Your task to perform on an android device: check the backup settings in the google photos Image 0: 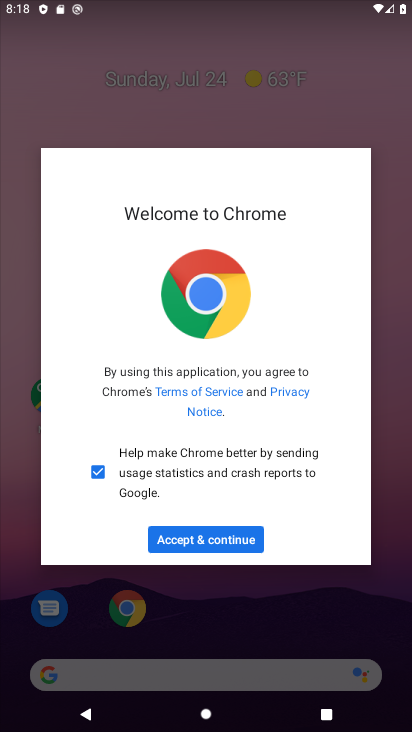
Step 0: press home button
Your task to perform on an android device: check the backup settings in the google photos Image 1: 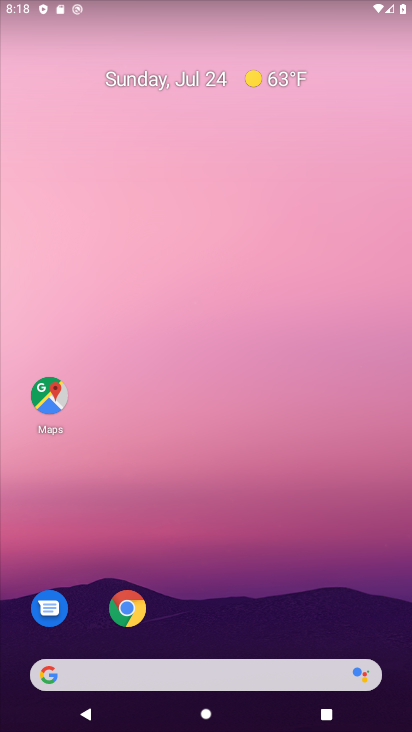
Step 1: drag from (215, 631) to (221, 9)
Your task to perform on an android device: check the backup settings in the google photos Image 2: 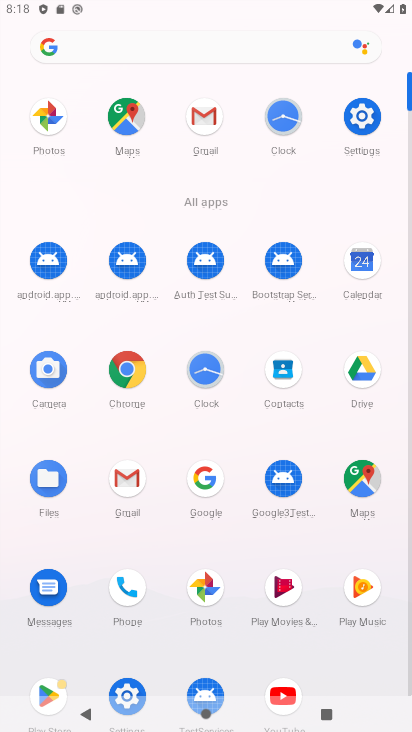
Step 2: click (201, 584)
Your task to perform on an android device: check the backup settings in the google photos Image 3: 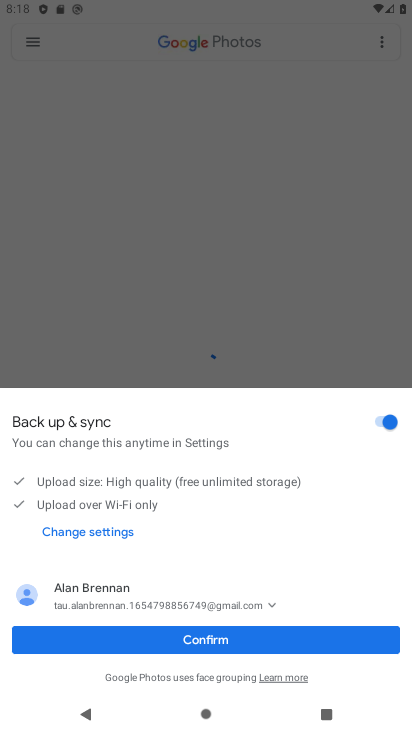
Step 3: click (232, 635)
Your task to perform on an android device: check the backup settings in the google photos Image 4: 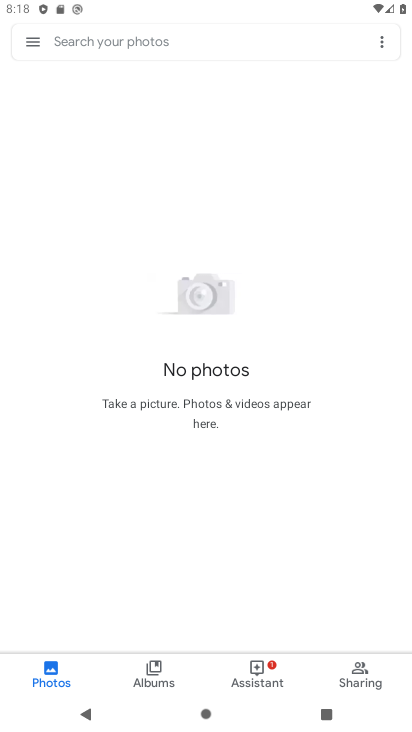
Step 4: click (34, 36)
Your task to perform on an android device: check the backup settings in the google photos Image 5: 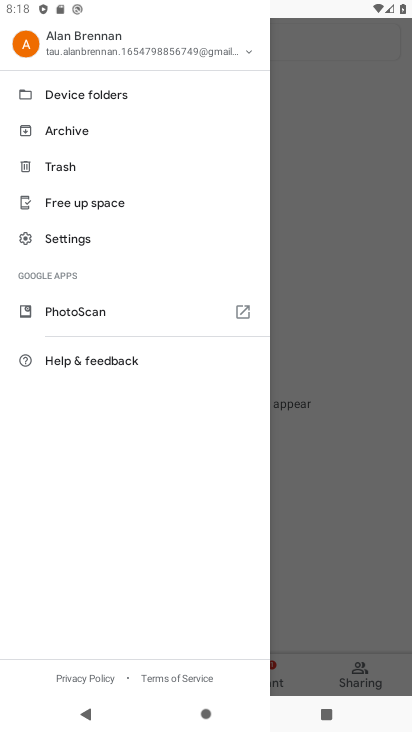
Step 5: click (95, 235)
Your task to perform on an android device: check the backup settings in the google photos Image 6: 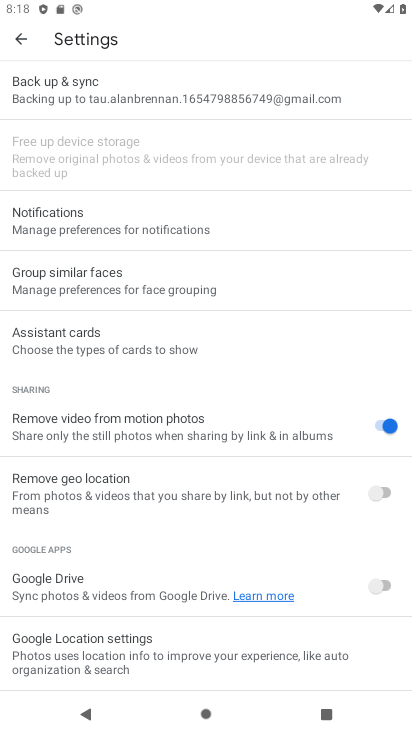
Step 6: click (72, 97)
Your task to perform on an android device: check the backup settings in the google photos Image 7: 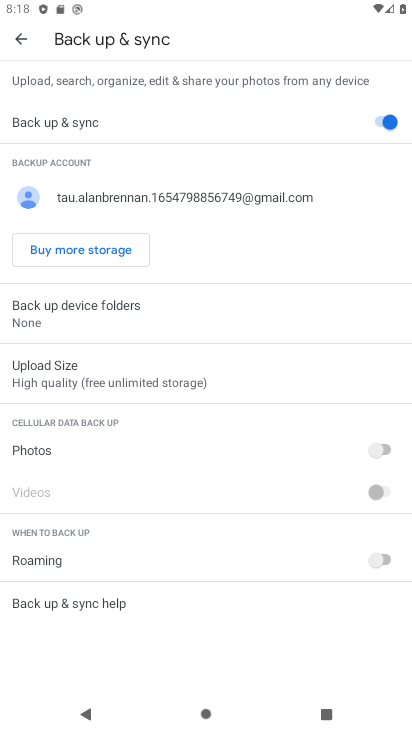
Step 7: task complete